Your task to perform on an android device: open a bookmark in the chrome app Image 0: 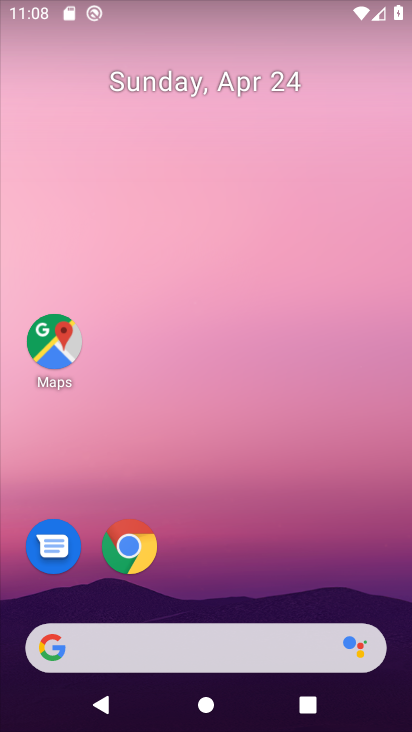
Step 0: click (121, 559)
Your task to perform on an android device: open a bookmark in the chrome app Image 1: 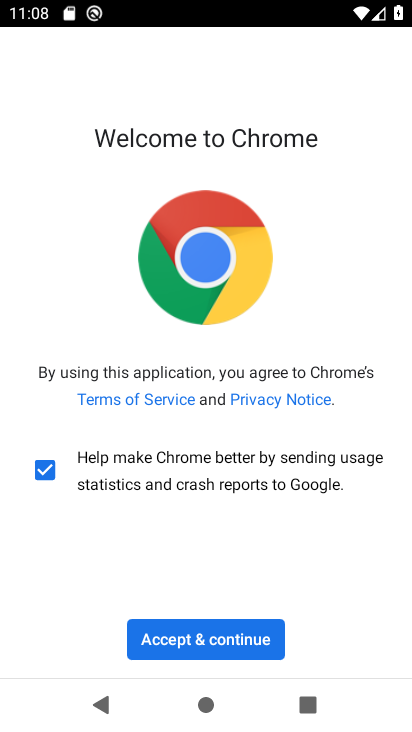
Step 1: click (247, 634)
Your task to perform on an android device: open a bookmark in the chrome app Image 2: 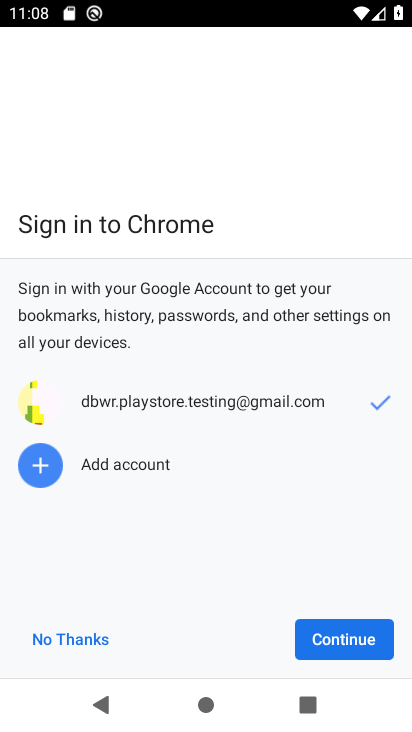
Step 2: click (352, 630)
Your task to perform on an android device: open a bookmark in the chrome app Image 3: 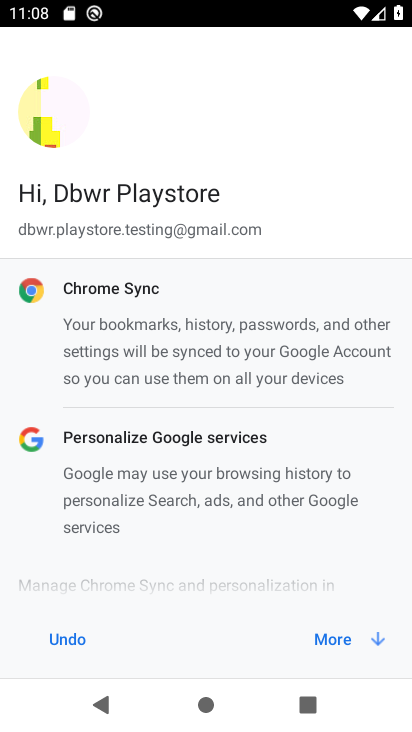
Step 3: click (352, 635)
Your task to perform on an android device: open a bookmark in the chrome app Image 4: 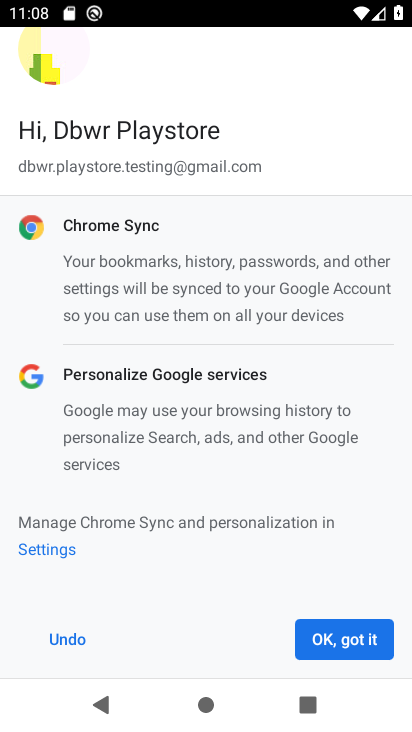
Step 4: click (352, 635)
Your task to perform on an android device: open a bookmark in the chrome app Image 5: 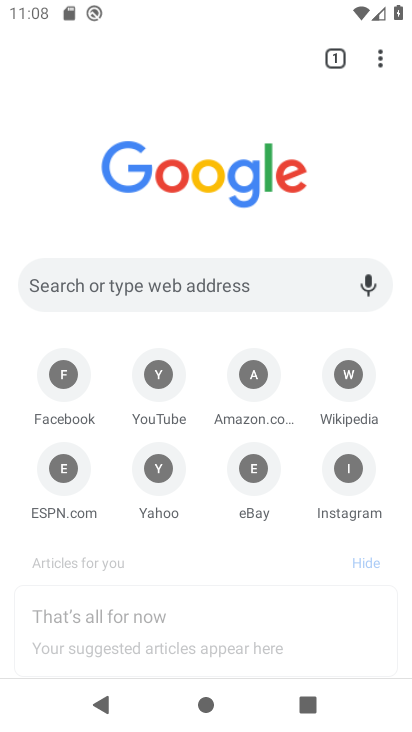
Step 5: click (384, 52)
Your task to perform on an android device: open a bookmark in the chrome app Image 6: 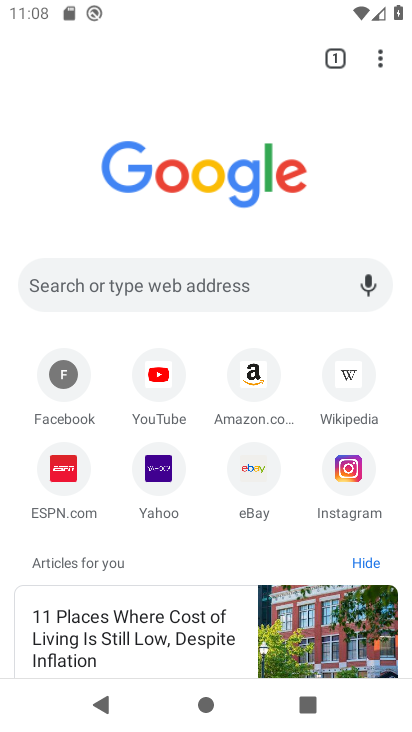
Step 6: click (383, 62)
Your task to perform on an android device: open a bookmark in the chrome app Image 7: 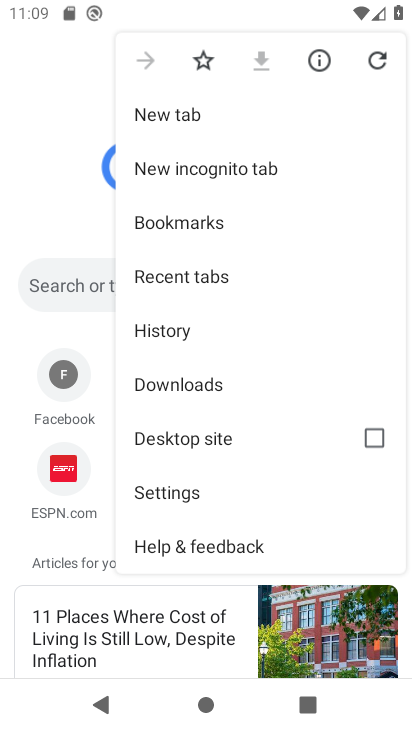
Step 7: click (242, 223)
Your task to perform on an android device: open a bookmark in the chrome app Image 8: 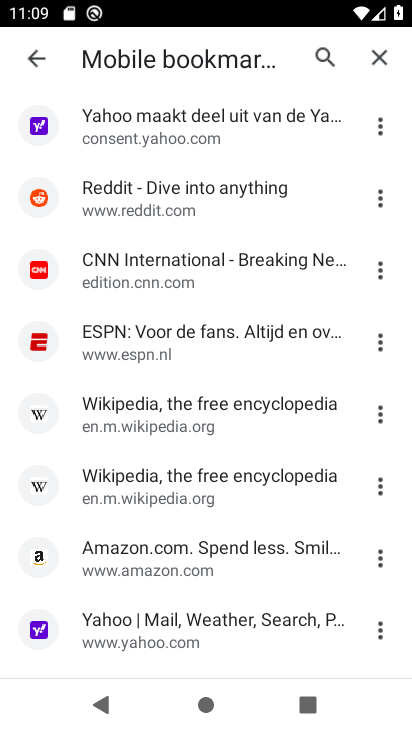
Step 8: click (206, 280)
Your task to perform on an android device: open a bookmark in the chrome app Image 9: 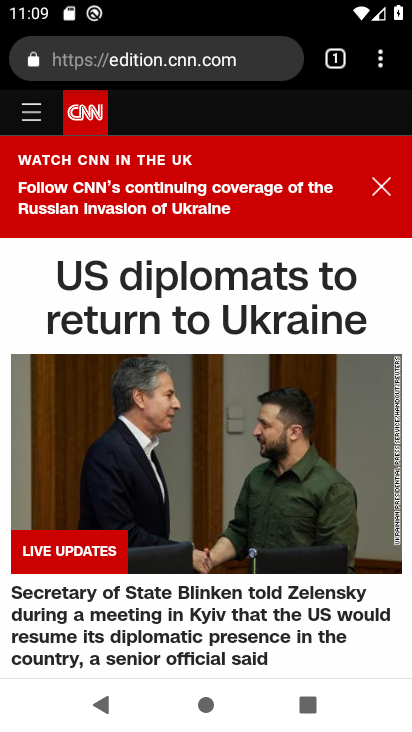
Step 9: task complete